Your task to perform on an android device: manage bookmarks in the chrome app Image 0: 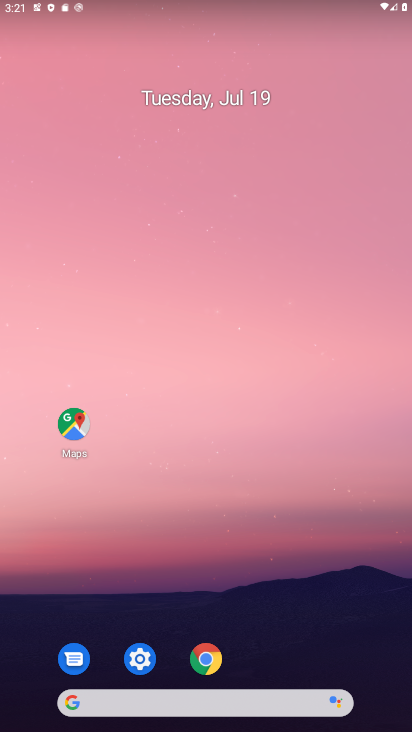
Step 0: drag from (259, 722) to (134, 80)
Your task to perform on an android device: manage bookmarks in the chrome app Image 1: 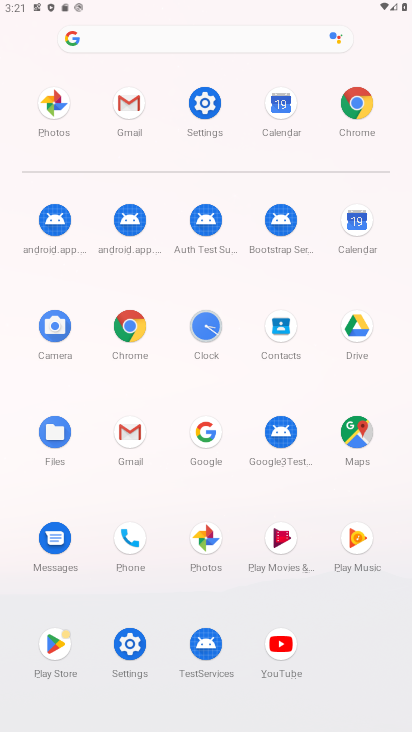
Step 1: click (352, 100)
Your task to perform on an android device: manage bookmarks in the chrome app Image 2: 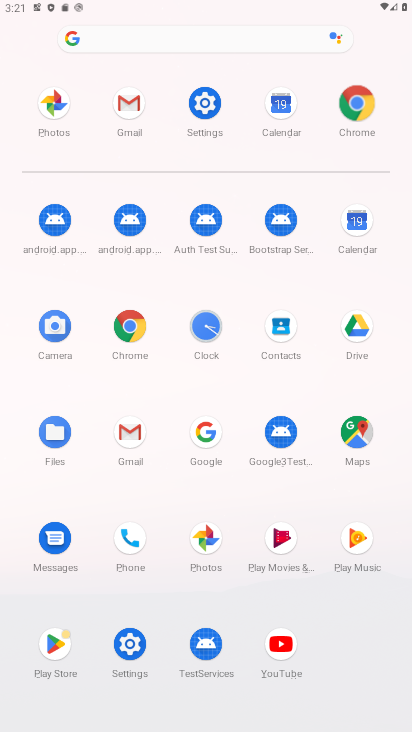
Step 2: click (356, 100)
Your task to perform on an android device: manage bookmarks in the chrome app Image 3: 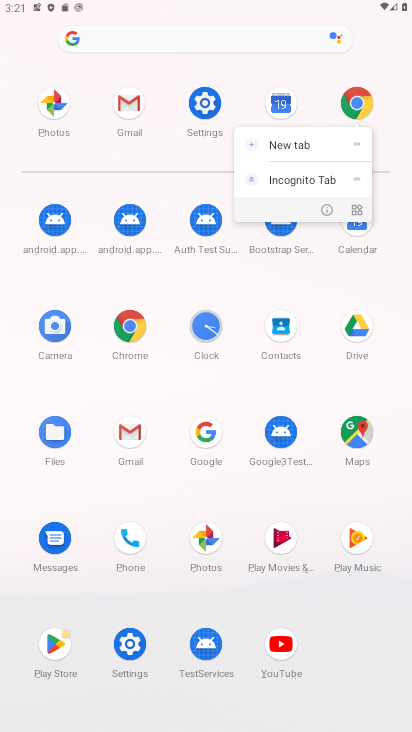
Step 3: click (359, 105)
Your task to perform on an android device: manage bookmarks in the chrome app Image 4: 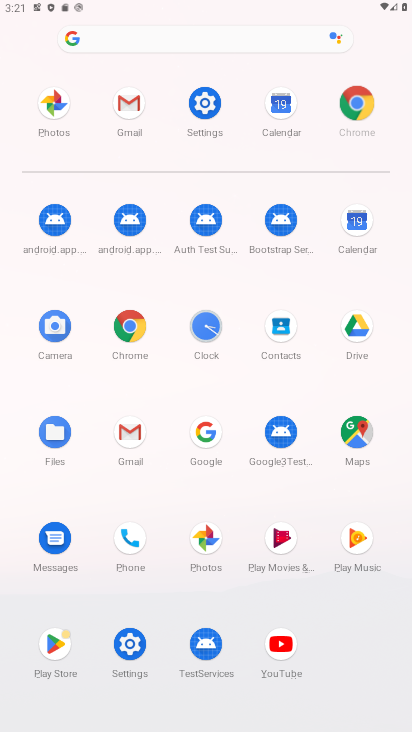
Step 4: click (359, 105)
Your task to perform on an android device: manage bookmarks in the chrome app Image 5: 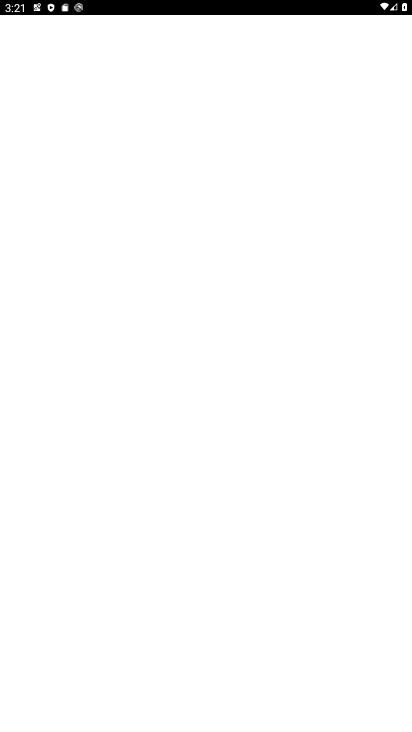
Step 5: click (359, 106)
Your task to perform on an android device: manage bookmarks in the chrome app Image 6: 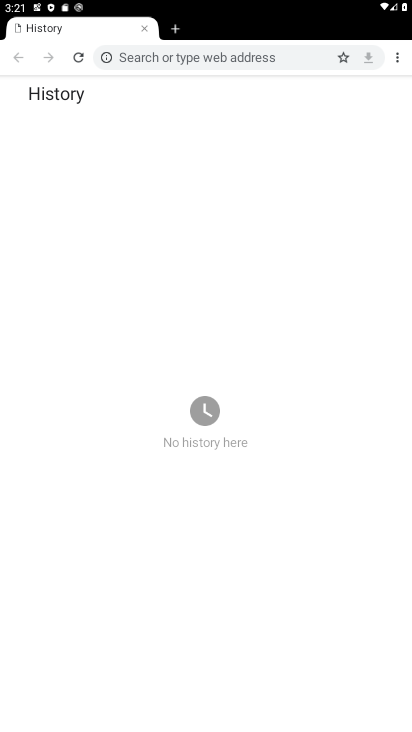
Step 6: drag from (399, 51) to (297, 108)
Your task to perform on an android device: manage bookmarks in the chrome app Image 7: 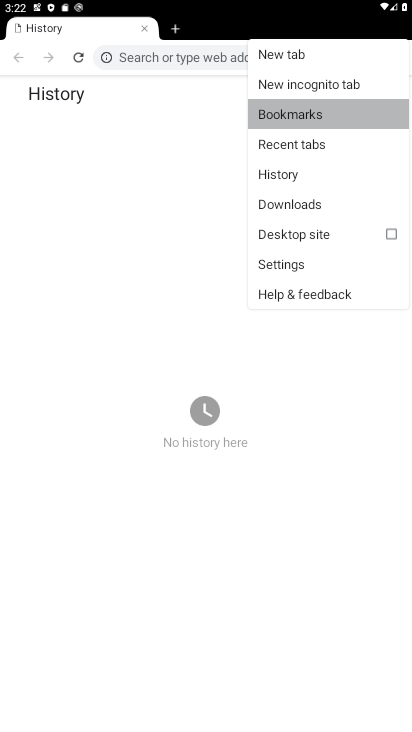
Step 7: click (297, 108)
Your task to perform on an android device: manage bookmarks in the chrome app Image 8: 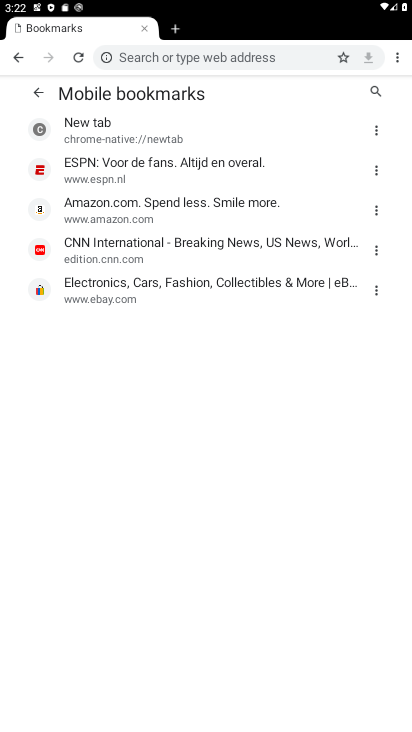
Step 8: drag from (381, 130) to (381, 179)
Your task to perform on an android device: manage bookmarks in the chrome app Image 9: 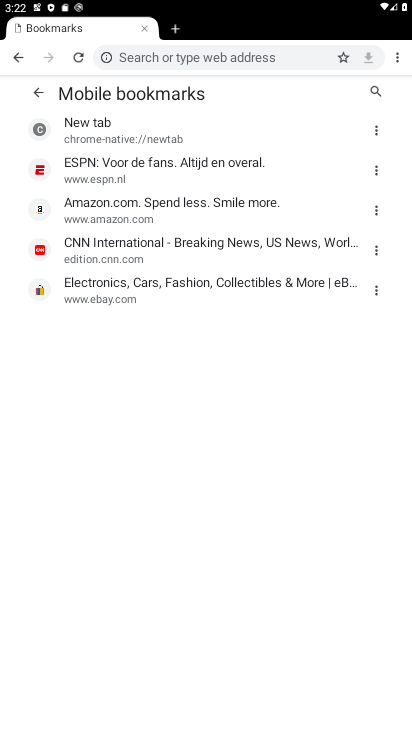
Step 9: click (373, 130)
Your task to perform on an android device: manage bookmarks in the chrome app Image 10: 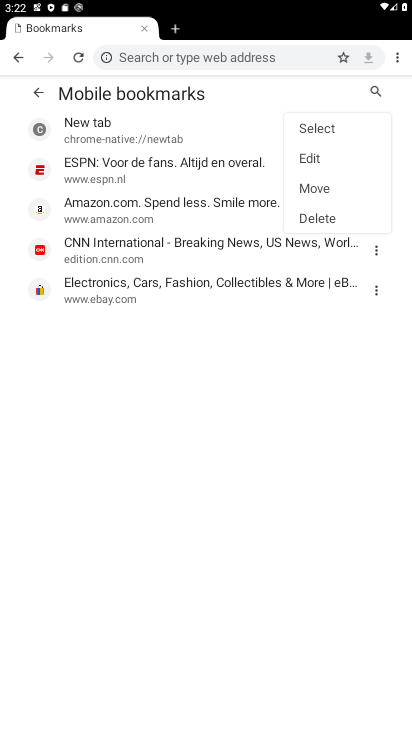
Step 10: click (313, 218)
Your task to perform on an android device: manage bookmarks in the chrome app Image 11: 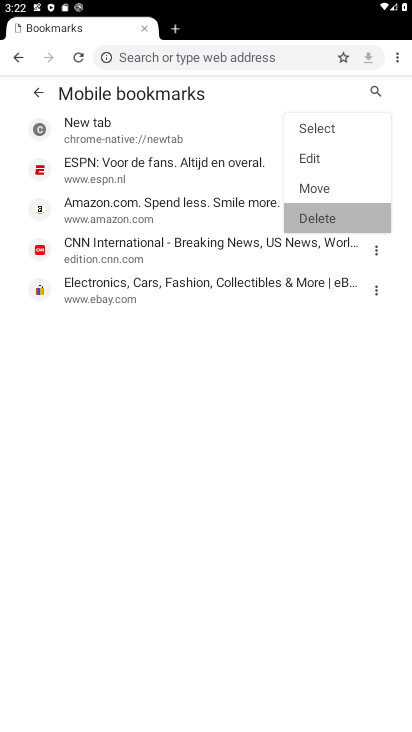
Step 11: click (313, 218)
Your task to perform on an android device: manage bookmarks in the chrome app Image 12: 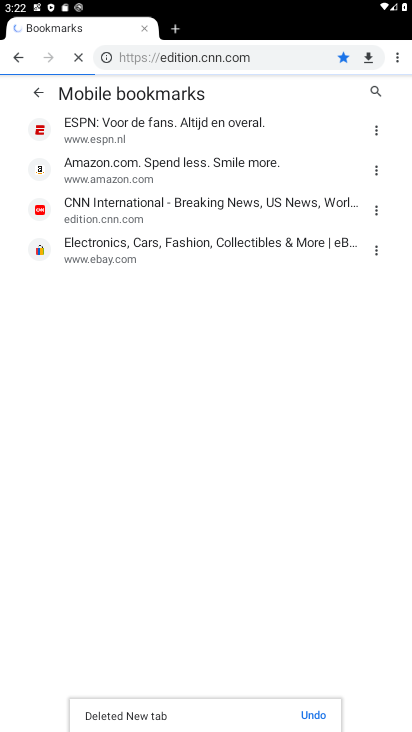
Step 12: task complete